Your task to perform on an android device: Clear the shopping cart on target.com. Image 0: 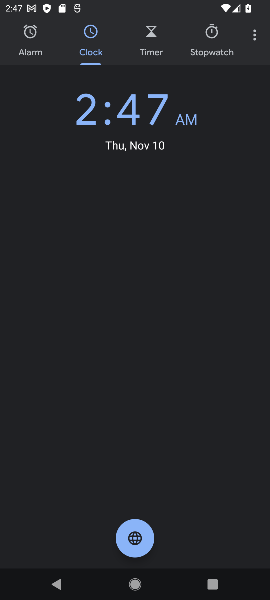
Step 0: press home button
Your task to perform on an android device: Clear the shopping cart on target.com. Image 1: 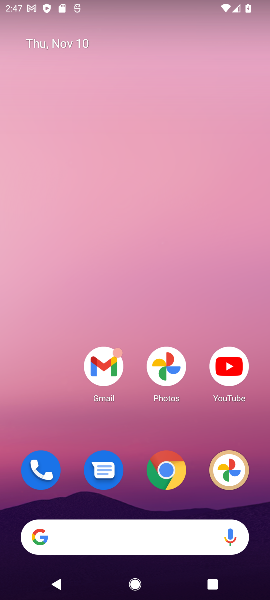
Step 1: click (168, 479)
Your task to perform on an android device: Clear the shopping cart on target.com. Image 2: 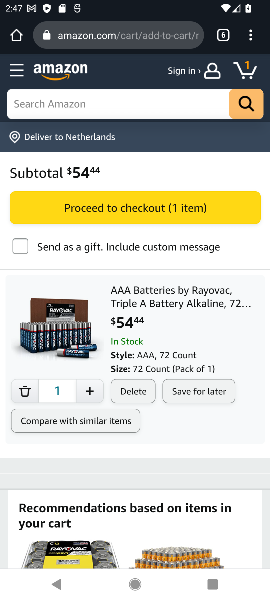
Step 2: click (220, 33)
Your task to perform on an android device: Clear the shopping cart on target.com. Image 3: 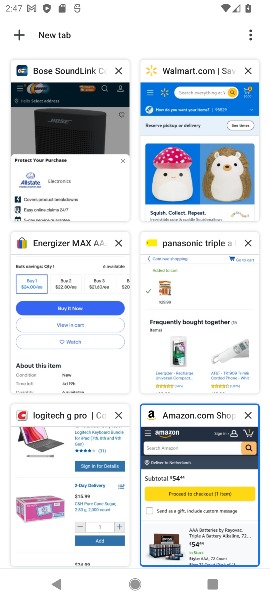
Step 3: click (19, 31)
Your task to perform on an android device: Clear the shopping cart on target.com. Image 4: 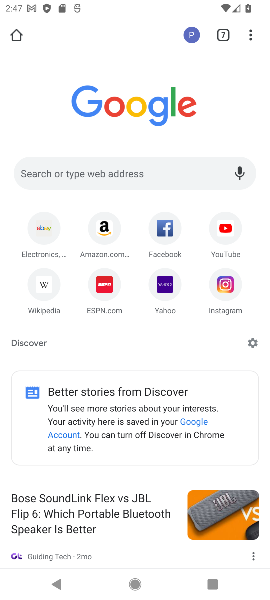
Step 4: click (92, 167)
Your task to perform on an android device: Clear the shopping cart on target.com. Image 5: 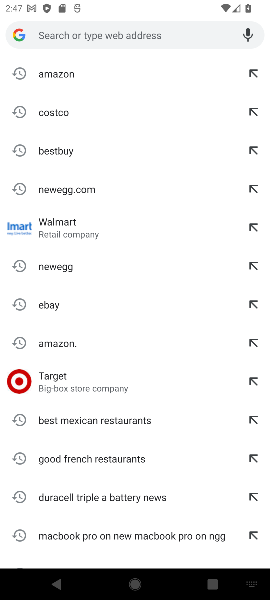
Step 5: click (45, 381)
Your task to perform on an android device: Clear the shopping cart on target.com. Image 6: 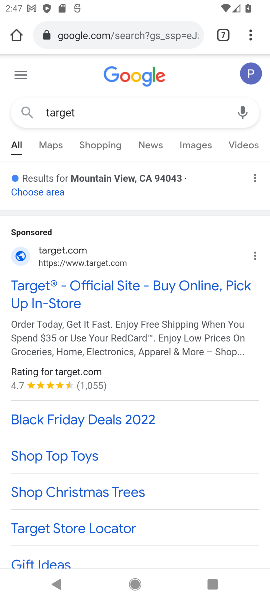
Step 6: click (34, 287)
Your task to perform on an android device: Clear the shopping cart on target.com. Image 7: 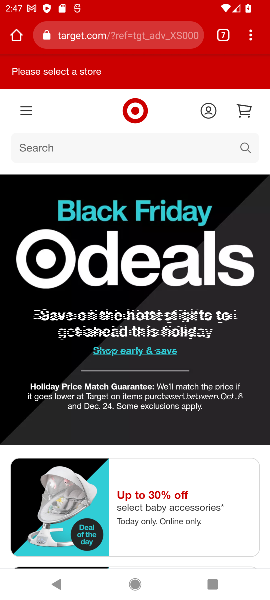
Step 7: click (243, 112)
Your task to perform on an android device: Clear the shopping cart on target.com. Image 8: 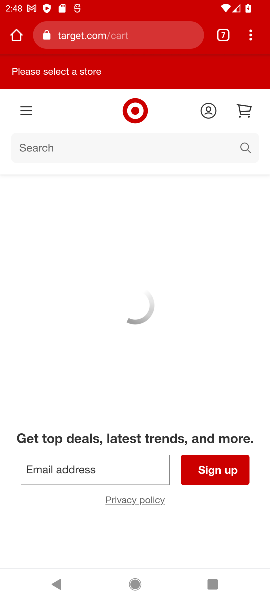
Step 8: task complete